Your task to perform on an android device: Do I have any events this weekend? Image 0: 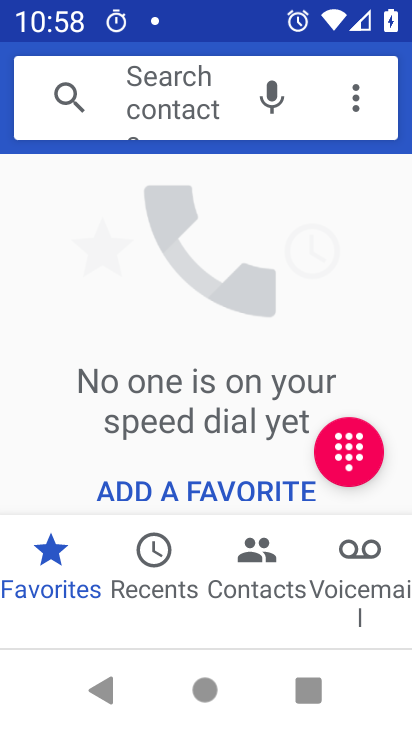
Step 0: press home button
Your task to perform on an android device: Do I have any events this weekend? Image 1: 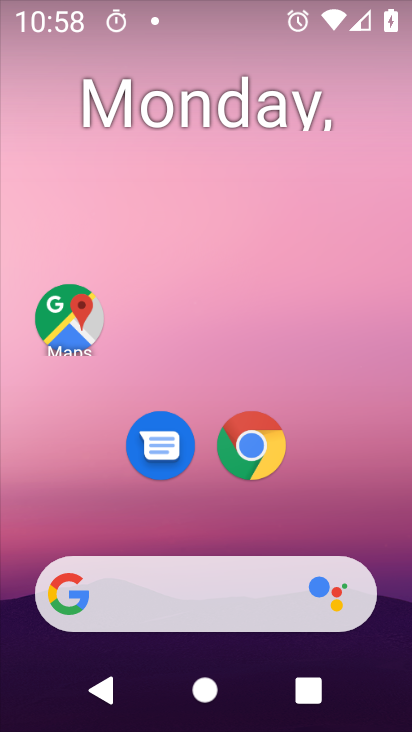
Step 1: drag from (321, 485) to (2, 74)
Your task to perform on an android device: Do I have any events this weekend? Image 2: 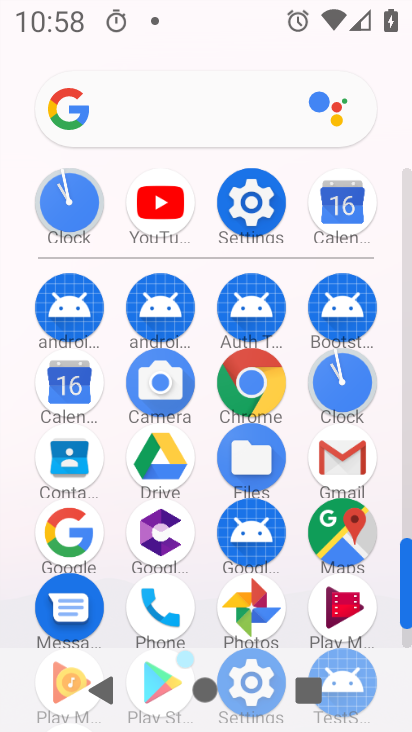
Step 2: click (356, 206)
Your task to perform on an android device: Do I have any events this weekend? Image 3: 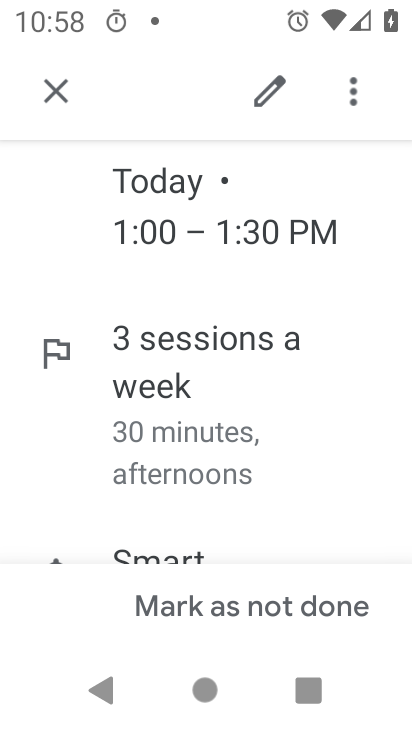
Step 3: click (55, 96)
Your task to perform on an android device: Do I have any events this weekend? Image 4: 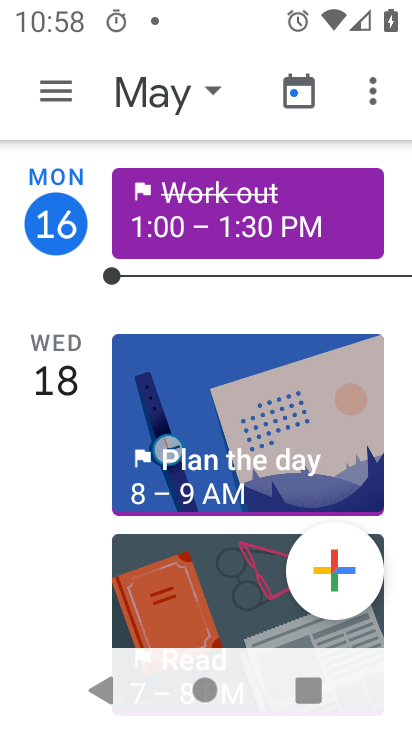
Step 4: click (62, 94)
Your task to perform on an android device: Do I have any events this weekend? Image 5: 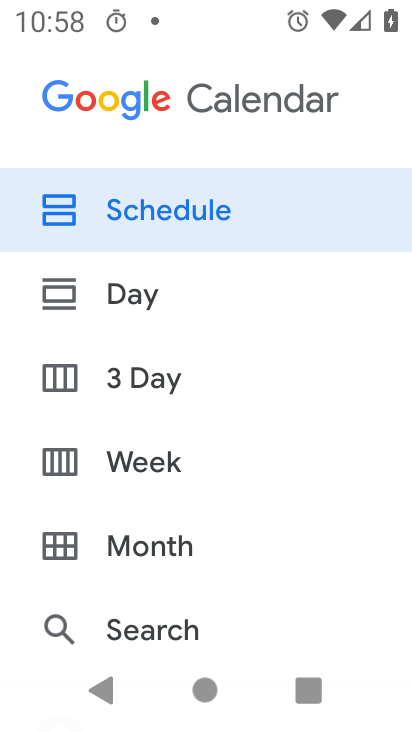
Step 5: click (144, 469)
Your task to perform on an android device: Do I have any events this weekend? Image 6: 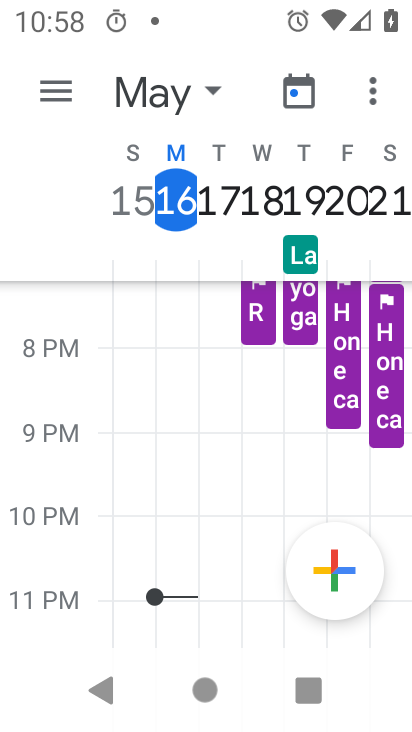
Step 6: drag from (276, 354) to (206, 593)
Your task to perform on an android device: Do I have any events this weekend? Image 7: 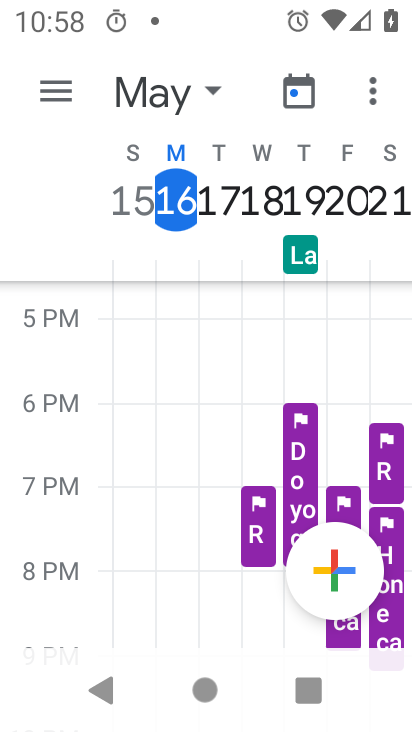
Step 7: drag from (224, 380) to (135, 629)
Your task to perform on an android device: Do I have any events this weekend? Image 8: 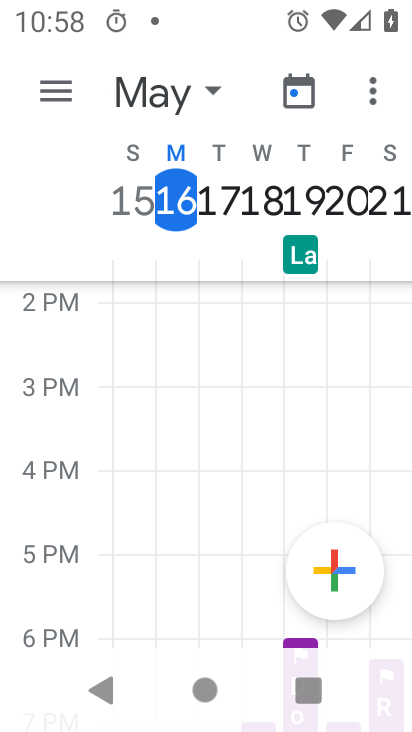
Step 8: drag from (184, 391) to (162, 585)
Your task to perform on an android device: Do I have any events this weekend? Image 9: 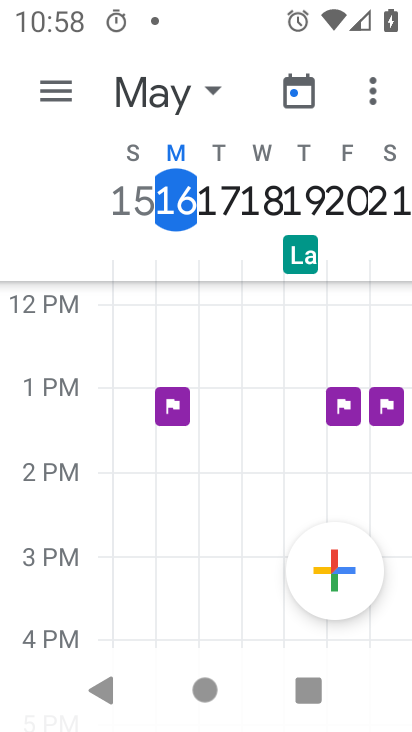
Step 9: drag from (218, 373) to (214, 515)
Your task to perform on an android device: Do I have any events this weekend? Image 10: 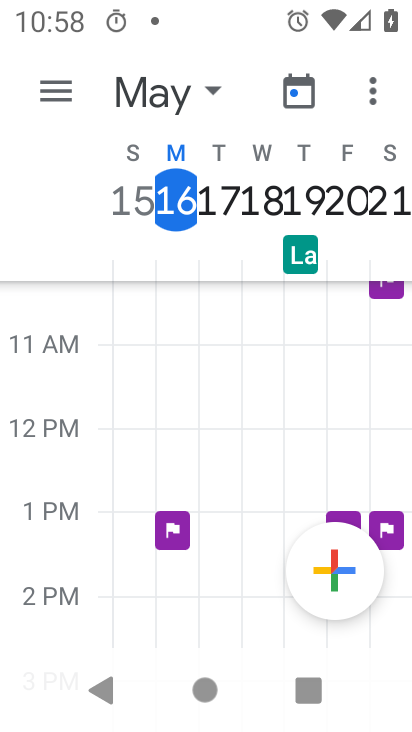
Step 10: click (46, 84)
Your task to perform on an android device: Do I have any events this weekend? Image 11: 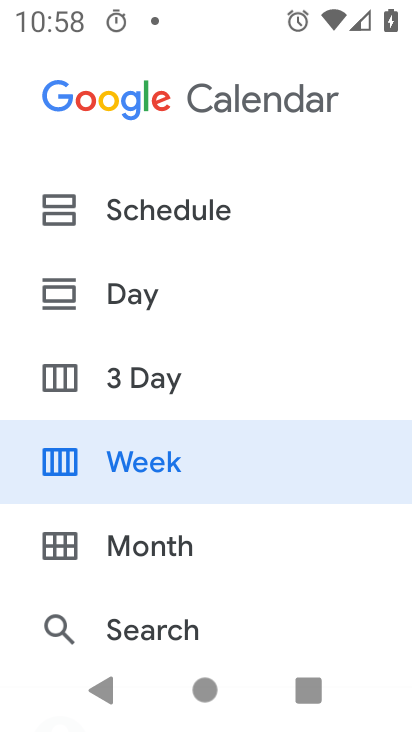
Step 11: click (117, 200)
Your task to perform on an android device: Do I have any events this weekend? Image 12: 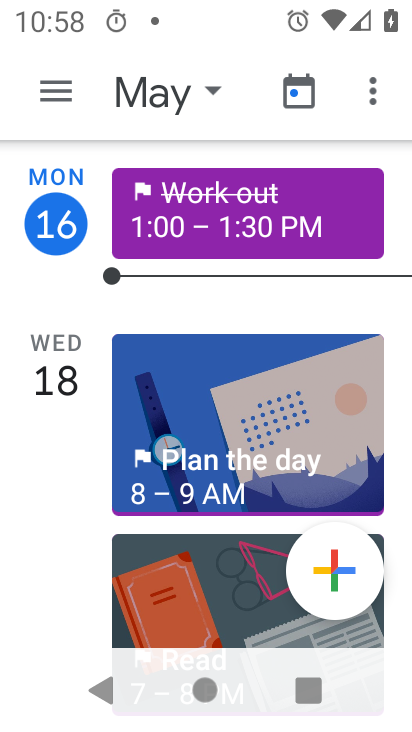
Step 12: drag from (166, 604) to (183, 263)
Your task to perform on an android device: Do I have any events this weekend? Image 13: 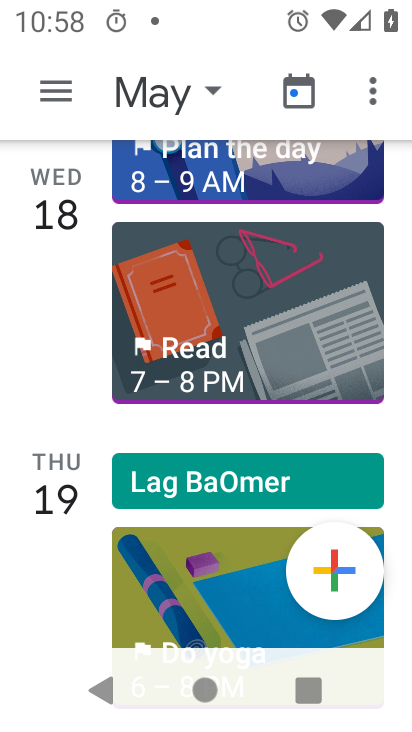
Step 13: drag from (166, 585) to (166, 288)
Your task to perform on an android device: Do I have any events this weekend? Image 14: 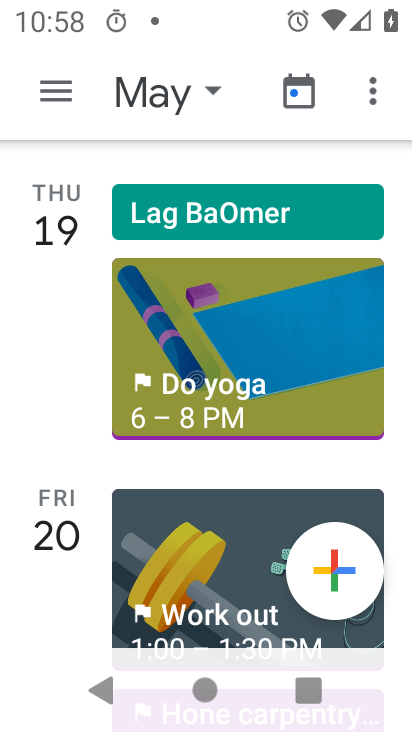
Step 14: drag from (177, 579) to (236, 292)
Your task to perform on an android device: Do I have any events this weekend? Image 15: 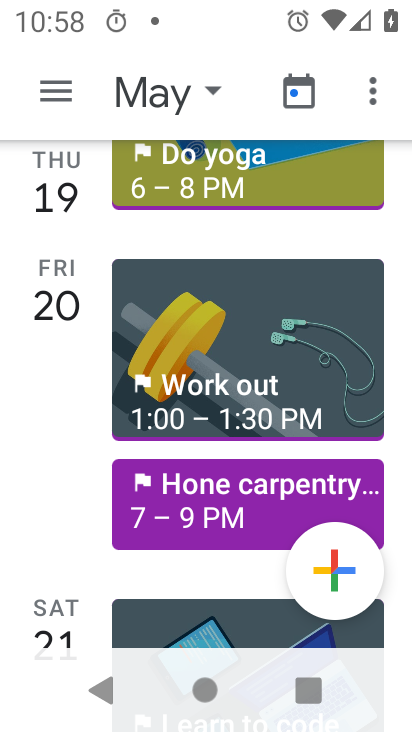
Step 15: click (240, 243)
Your task to perform on an android device: Do I have any events this weekend? Image 16: 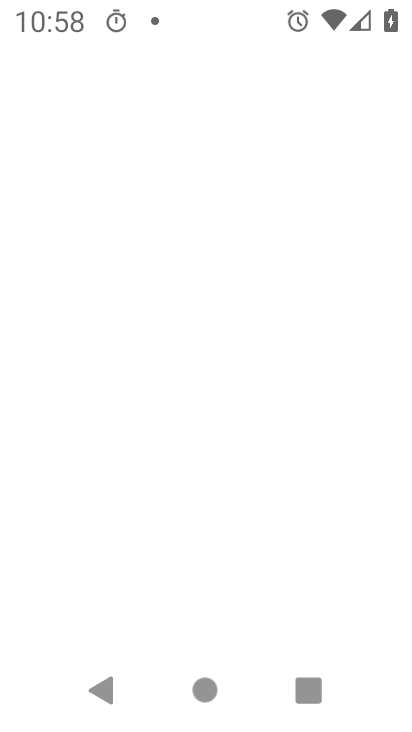
Step 16: drag from (103, 592) to (161, 335)
Your task to perform on an android device: Do I have any events this weekend? Image 17: 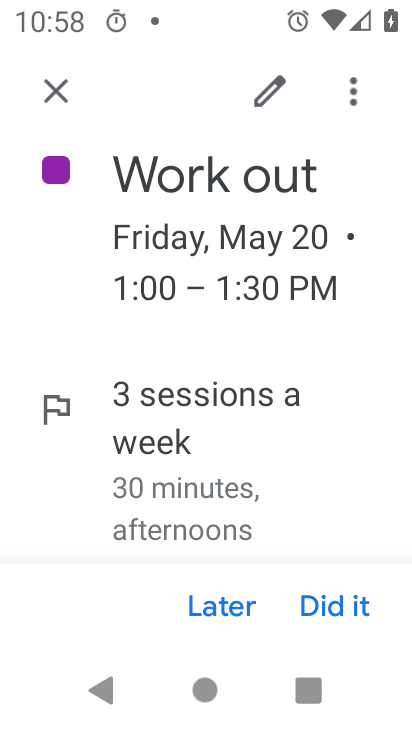
Step 17: click (55, 95)
Your task to perform on an android device: Do I have any events this weekend? Image 18: 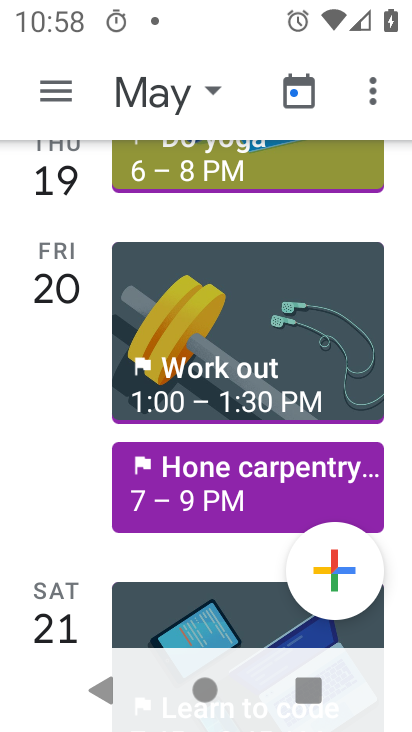
Step 18: task complete